Your task to perform on an android device: change the clock display to show seconds Image 0: 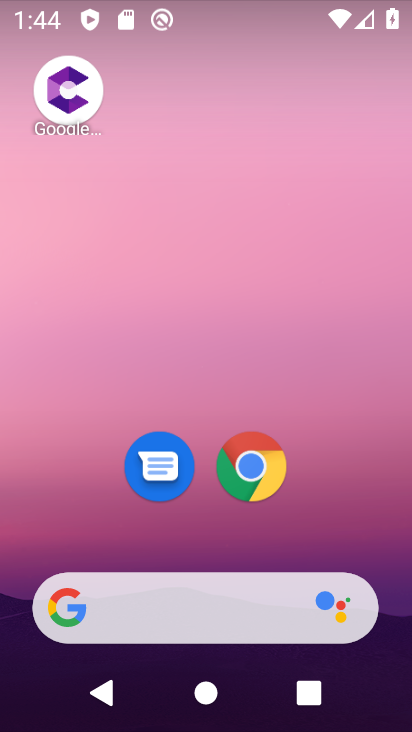
Step 0: drag from (318, 486) to (235, 69)
Your task to perform on an android device: change the clock display to show seconds Image 1: 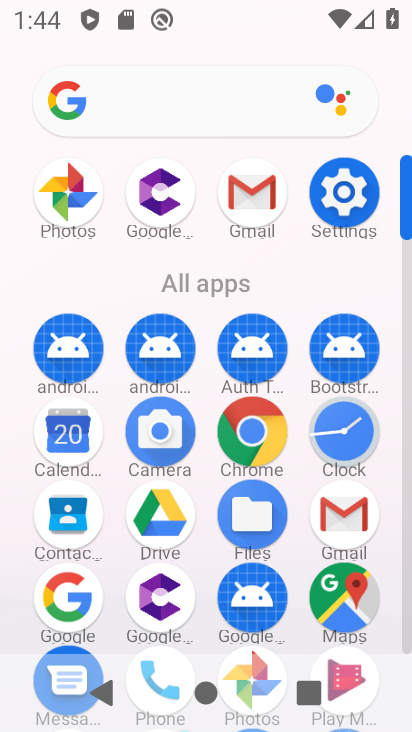
Step 1: drag from (12, 443) to (21, 221)
Your task to perform on an android device: change the clock display to show seconds Image 2: 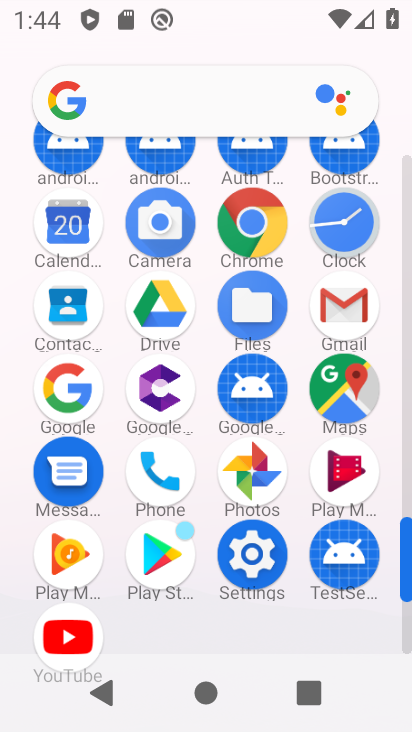
Step 2: drag from (16, 521) to (20, 213)
Your task to perform on an android device: change the clock display to show seconds Image 3: 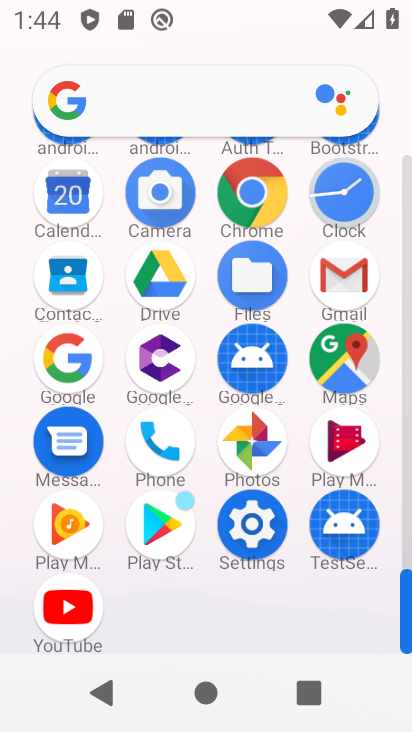
Step 3: click (336, 194)
Your task to perform on an android device: change the clock display to show seconds Image 4: 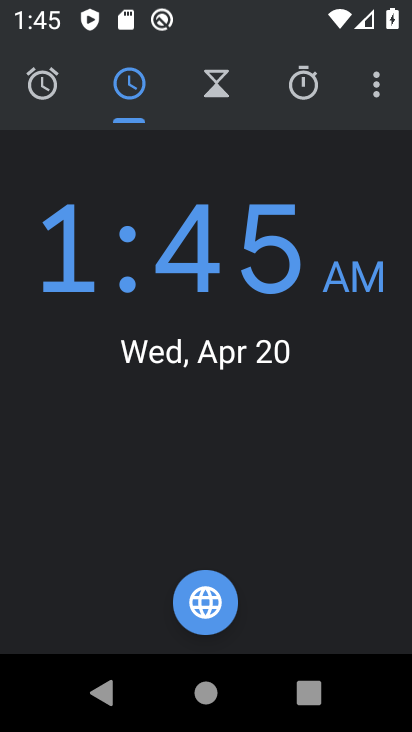
Step 4: click (376, 89)
Your task to perform on an android device: change the clock display to show seconds Image 5: 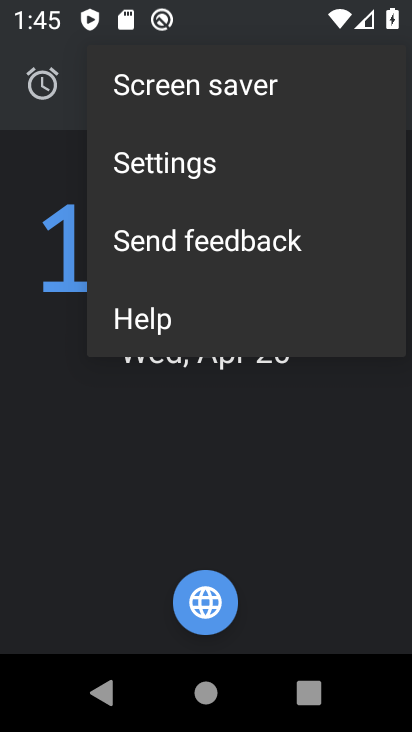
Step 5: click (253, 154)
Your task to perform on an android device: change the clock display to show seconds Image 6: 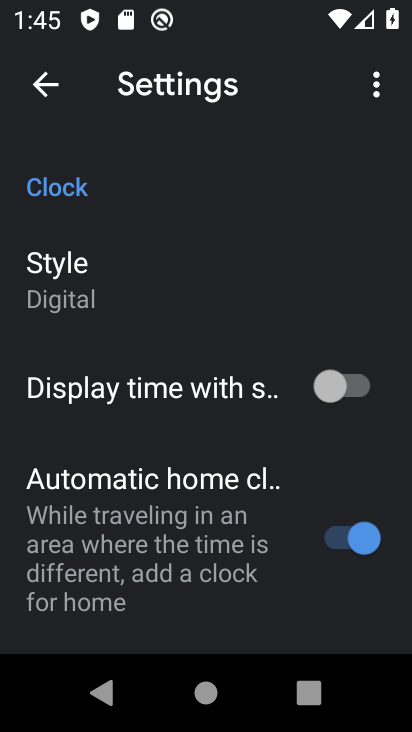
Step 6: click (347, 381)
Your task to perform on an android device: change the clock display to show seconds Image 7: 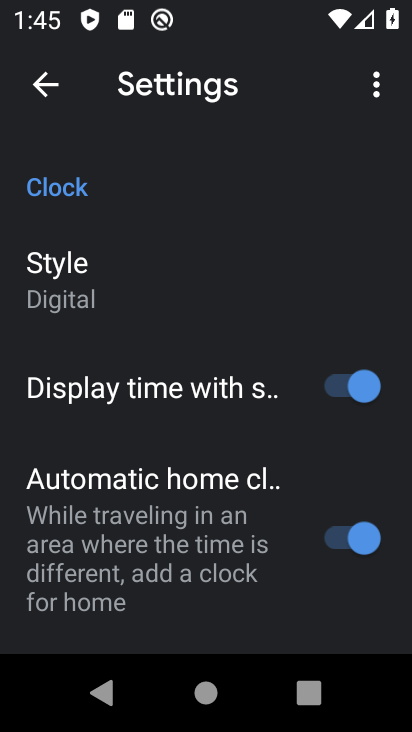
Step 7: task complete